Your task to perform on an android device: turn off notifications settings in the gmail app Image 0: 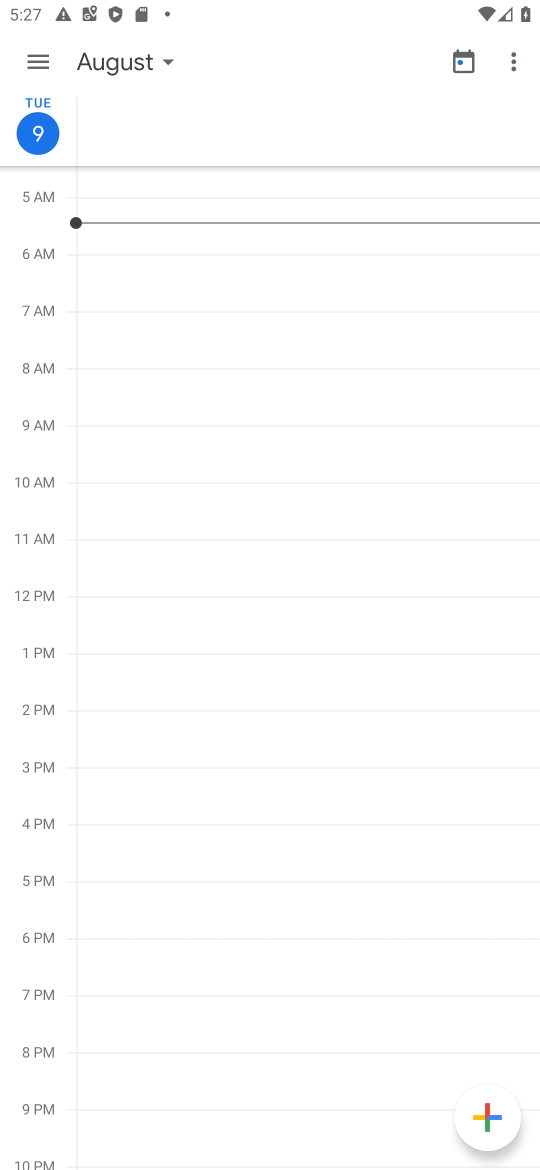
Step 0: press home button
Your task to perform on an android device: turn off notifications settings in the gmail app Image 1: 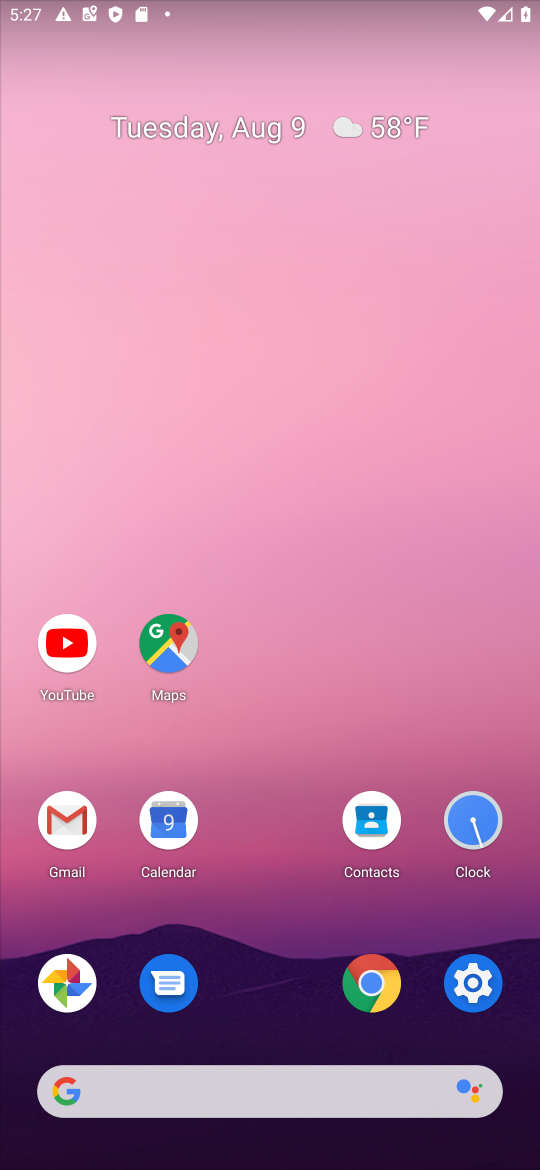
Step 1: click (66, 811)
Your task to perform on an android device: turn off notifications settings in the gmail app Image 2: 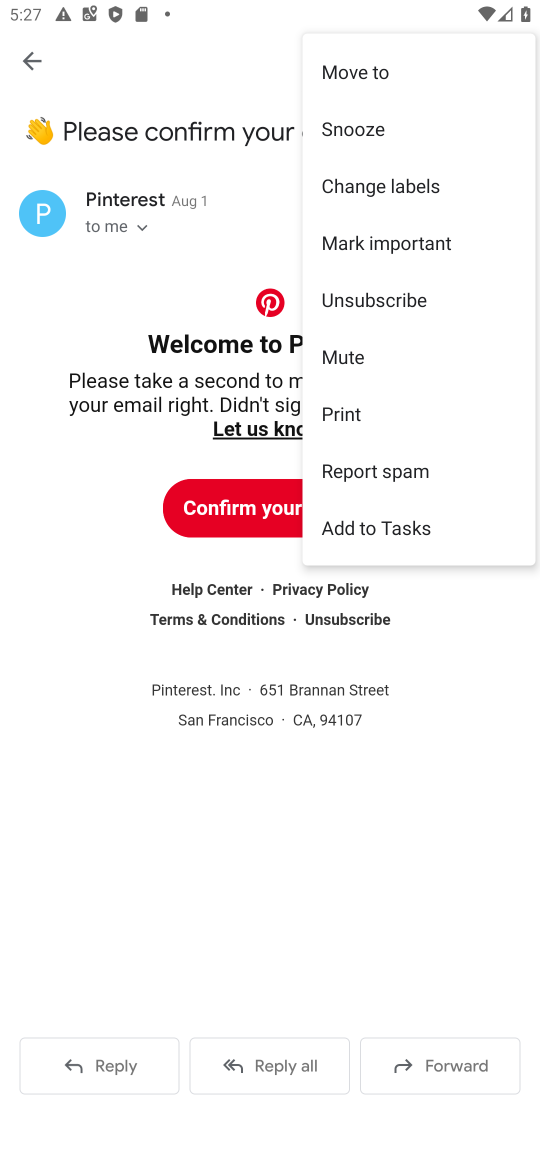
Step 2: click (20, 63)
Your task to perform on an android device: turn off notifications settings in the gmail app Image 3: 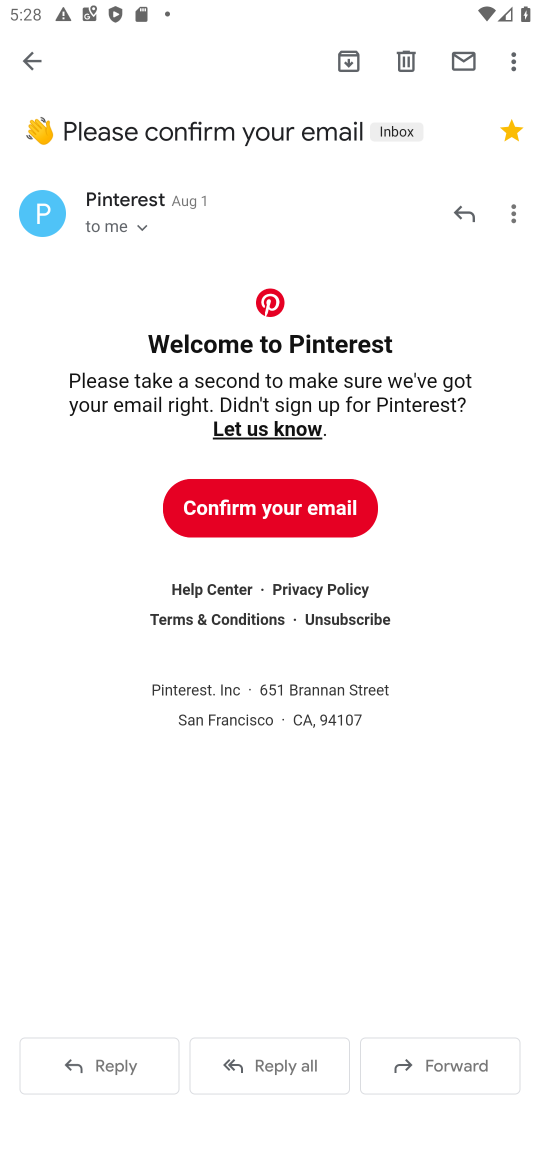
Step 3: click (30, 54)
Your task to perform on an android device: turn off notifications settings in the gmail app Image 4: 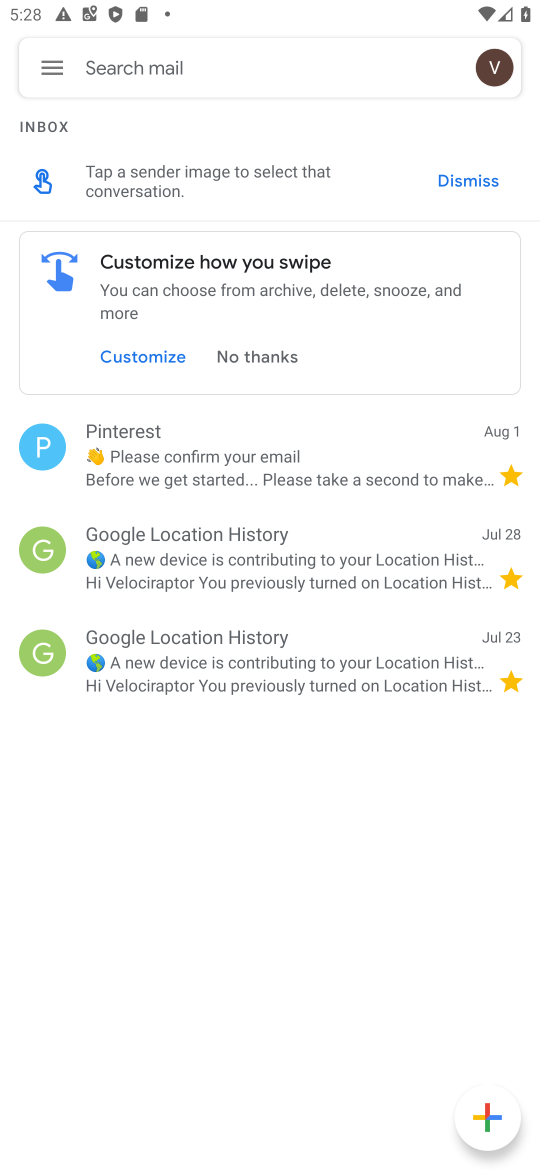
Step 4: click (54, 57)
Your task to perform on an android device: turn off notifications settings in the gmail app Image 5: 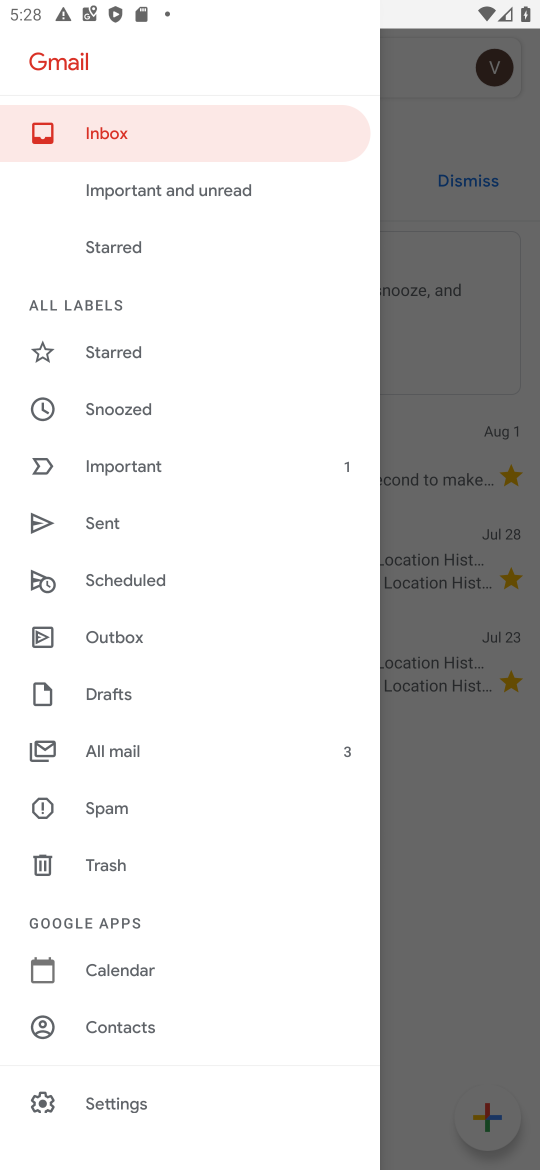
Step 5: click (119, 1099)
Your task to perform on an android device: turn off notifications settings in the gmail app Image 6: 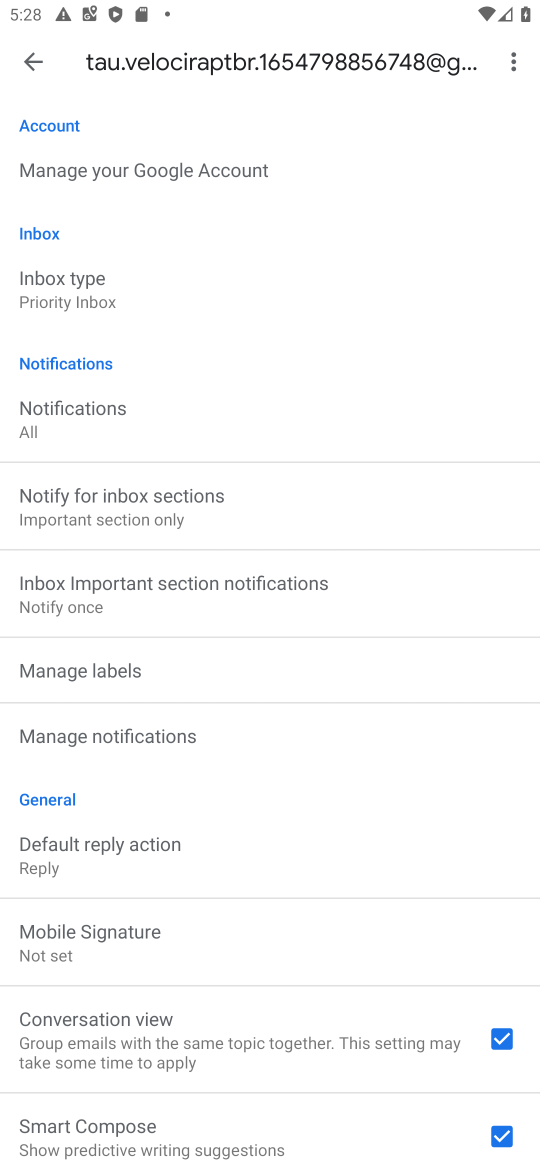
Step 6: click (34, 56)
Your task to perform on an android device: turn off notifications settings in the gmail app Image 7: 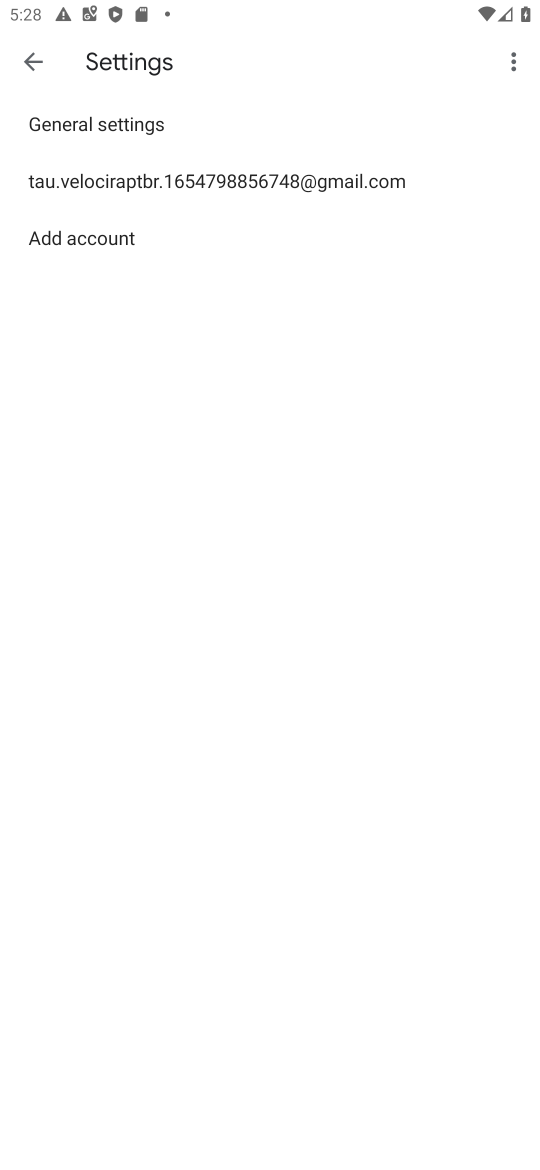
Step 7: click (70, 120)
Your task to perform on an android device: turn off notifications settings in the gmail app Image 8: 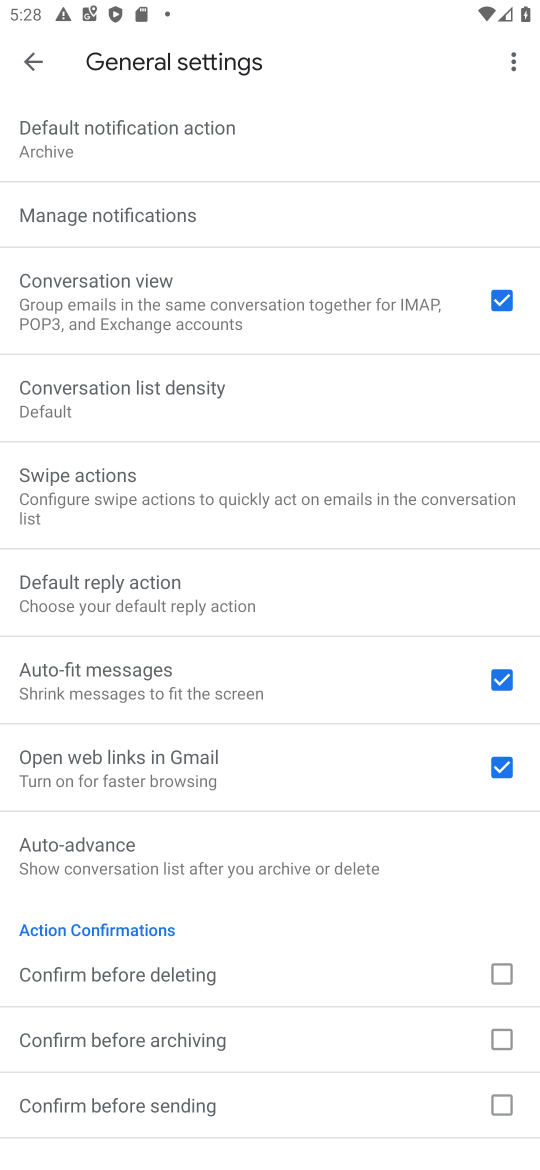
Step 8: click (181, 204)
Your task to perform on an android device: turn off notifications settings in the gmail app Image 9: 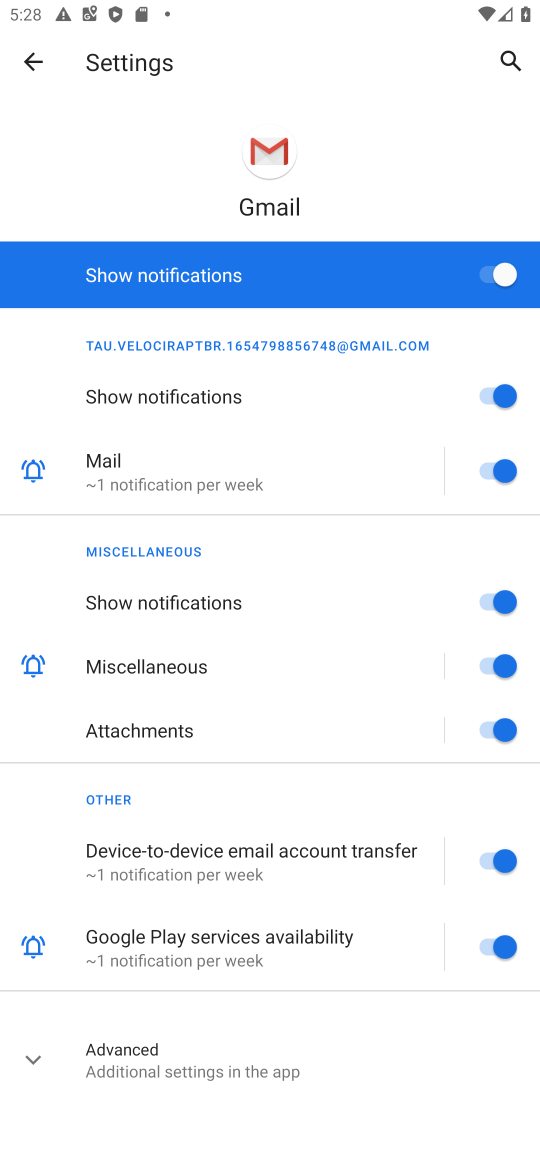
Step 9: click (497, 269)
Your task to perform on an android device: turn off notifications settings in the gmail app Image 10: 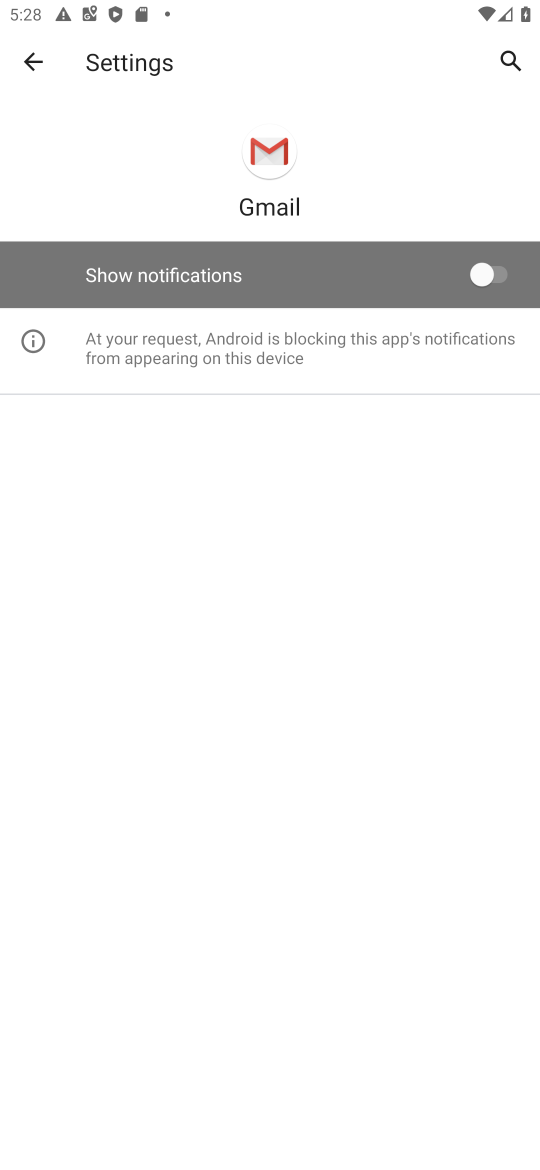
Step 10: task complete